Your task to perform on an android device: Go to Yahoo.com Image 0: 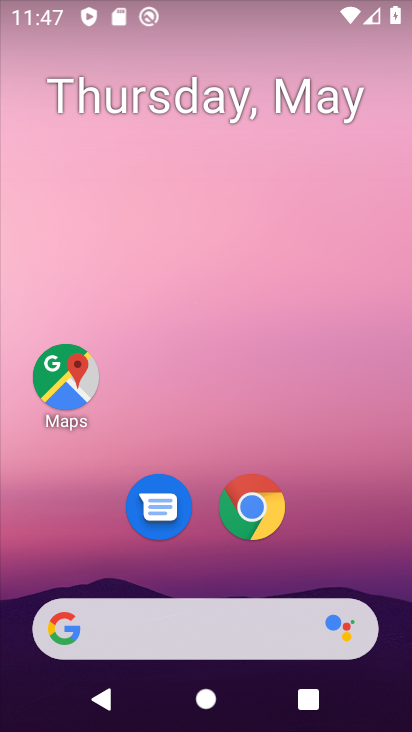
Step 0: click (258, 518)
Your task to perform on an android device: Go to Yahoo.com Image 1: 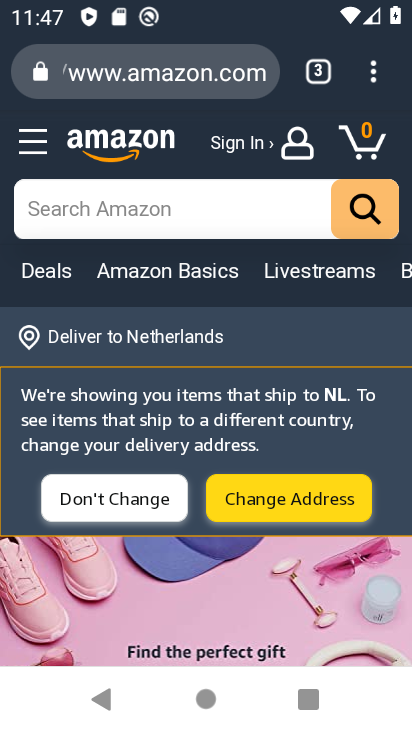
Step 1: click (244, 76)
Your task to perform on an android device: Go to Yahoo.com Image 2: 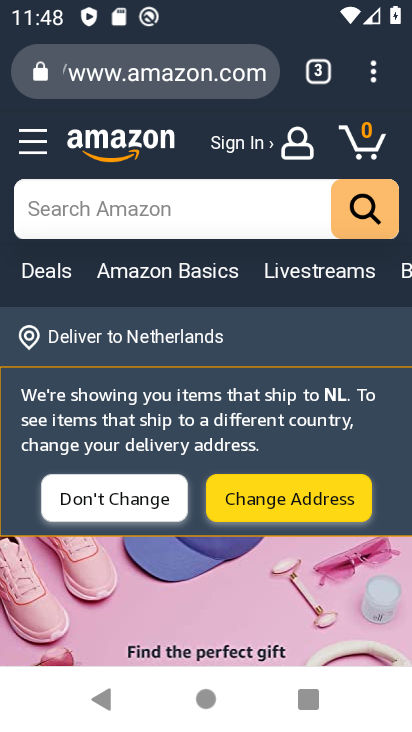
Step 2: click (210, 68)
Your task to perform on an android device: Go to Yahoo.com Image 3: 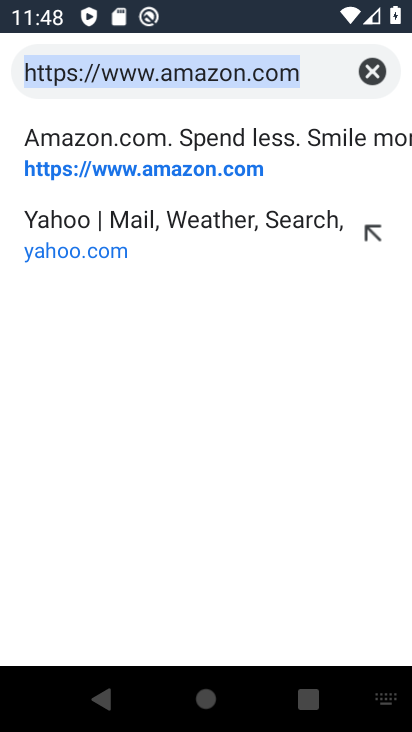
Step 3: type "yahoo.com"
Your task to perform on an android device: Go to Yahoo.com Image 4: 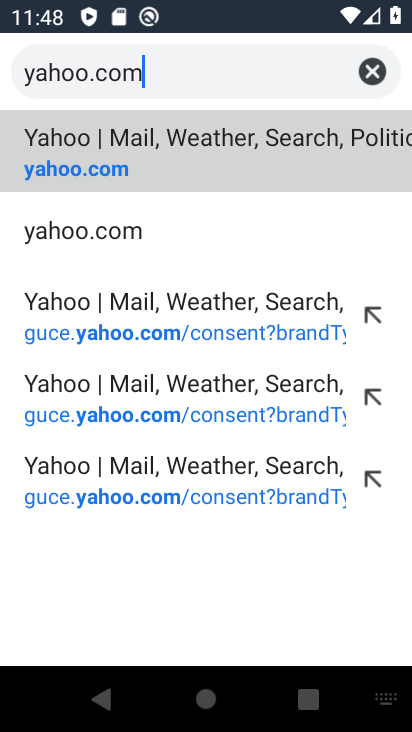
Step 4: click (323, 156)
Your task to perform on an android device: Go to Yahoo.com Image 5: 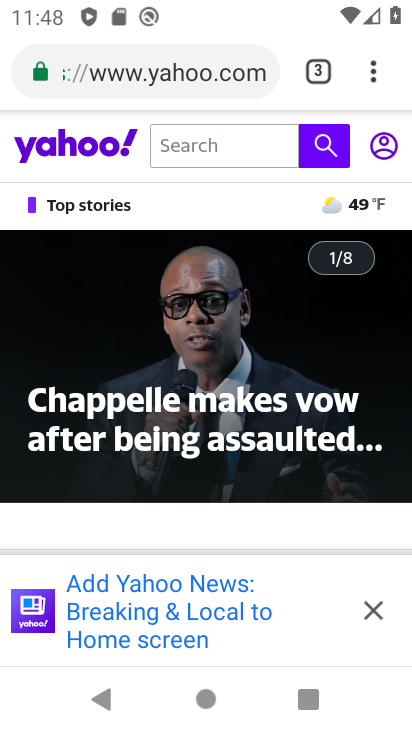
Step 5: task complete